Your task to perform on an android device: toggle javascript in the chrome app Image 0: 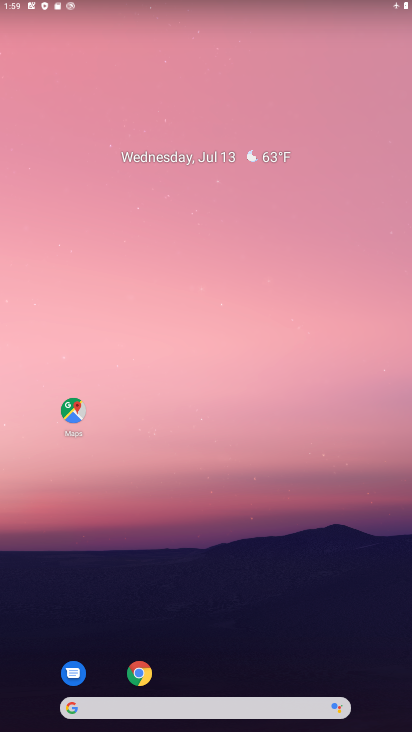
Step 0: drag from (185, 638) to (185, 160)
Your task to perform on an android device: toggle javascript in the chrome app Image 1: 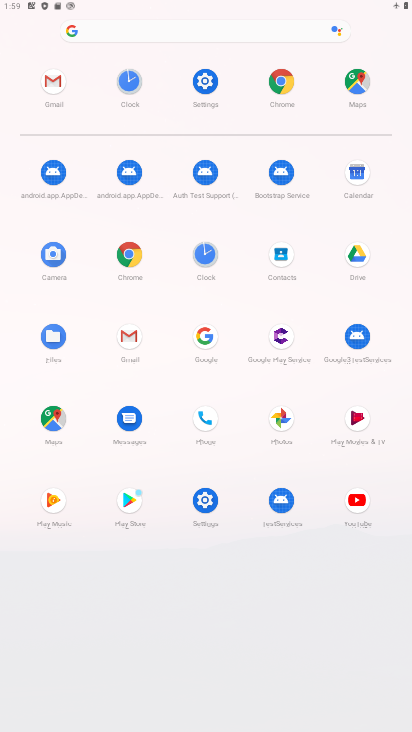
Step 1: click (278, 76)
Your task to perform on an android device: toggle javascript in the chrome app Image 2: 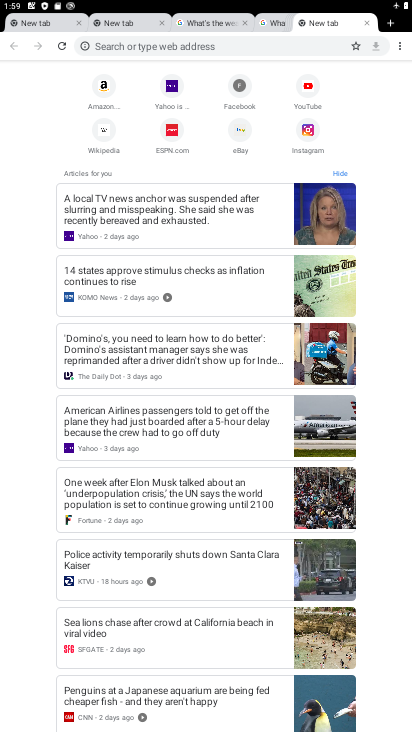
Step 2: click (394, 41)
Your task to perform on an android device: toggle javascript in the chrome app Image 3: 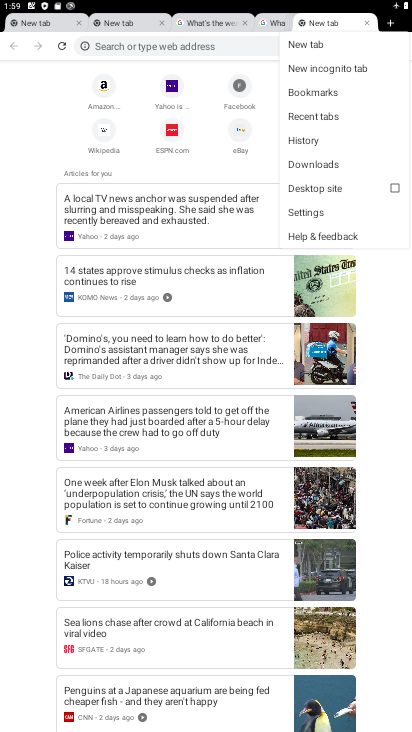
Step 3: click (306, 208)
Your task to perform on an android device: toggle javascript in the chrome app Image 4: 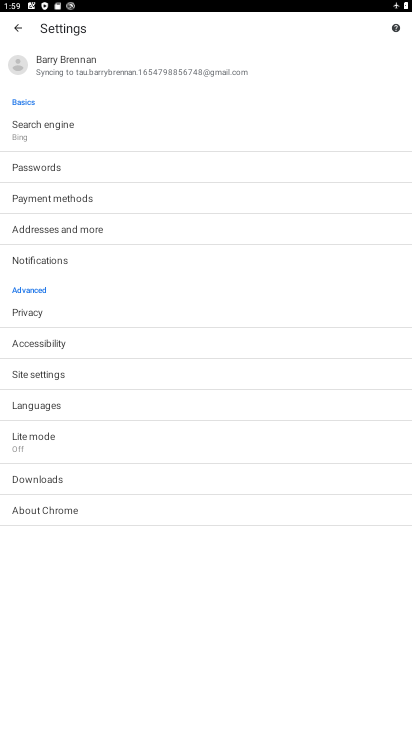
Step 4: click (79, 372)
Your task to perform on an android device: toggle javascript in the chrome app Image 5: 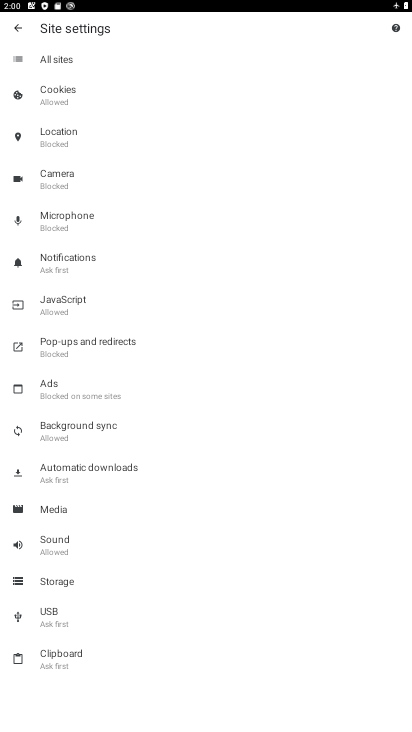
Step 5: click (66, 302)
Your task to perform on an android device: toggle javascript in the chrome app Image 6: 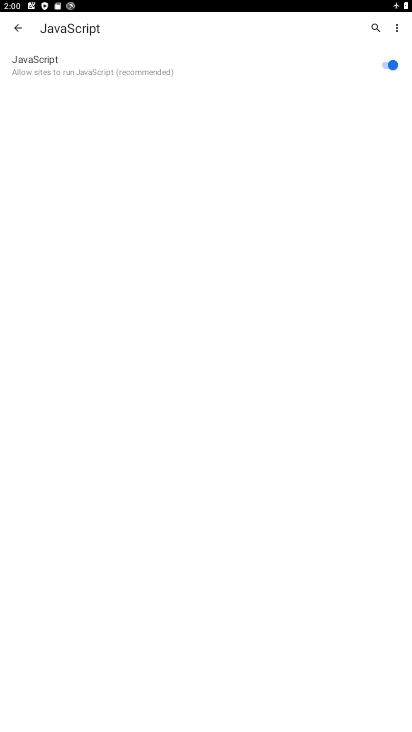
Step 6: click (387, 64)
Your task to perform on an android device: toggle javascript in the chrome app Image 7: 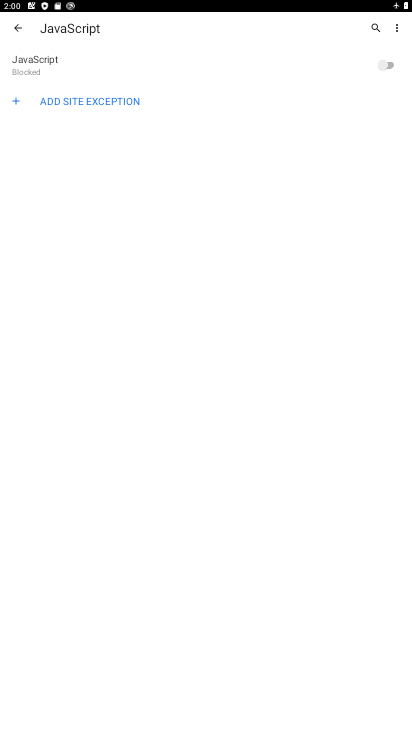
Step 7: task complete